Your task to perform on an android device: empty trash in google photos Image 0: 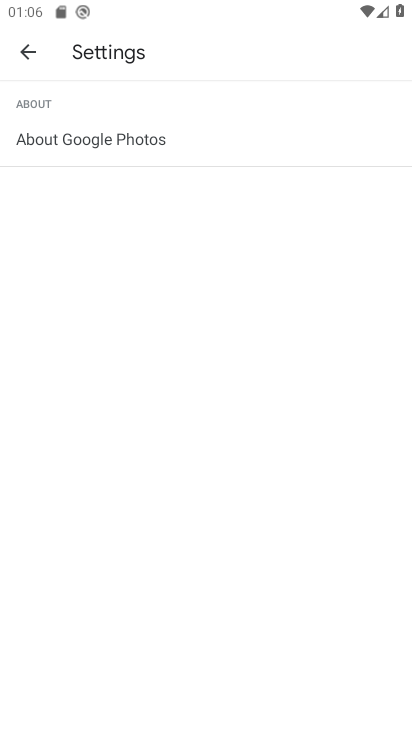
Step 0: press home button
Your task to perform on an android device: empty trash in google photos Image 1: 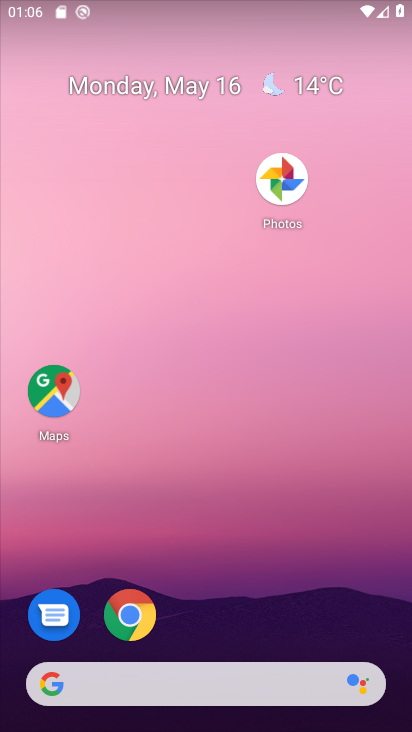
Step 1: drag from (296, 567) to (336, 102)
Your task to perform on an android device: empty trash in google photos Image 2: 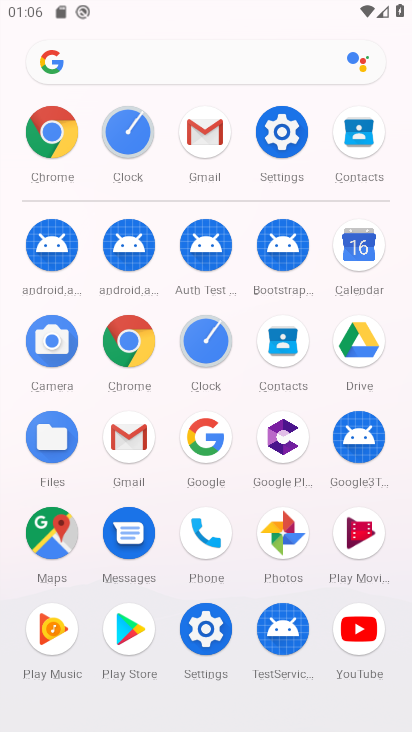
Step 2: click (279, 527)
Your task to perform on an android device: empty trash in google photos Image 3: 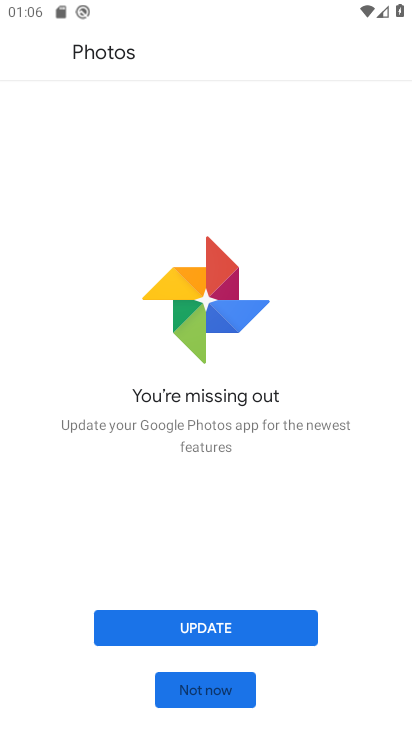
Step 3: click (135, 623)
Your task to perform on an android device: empty trash in google photos Image 4: 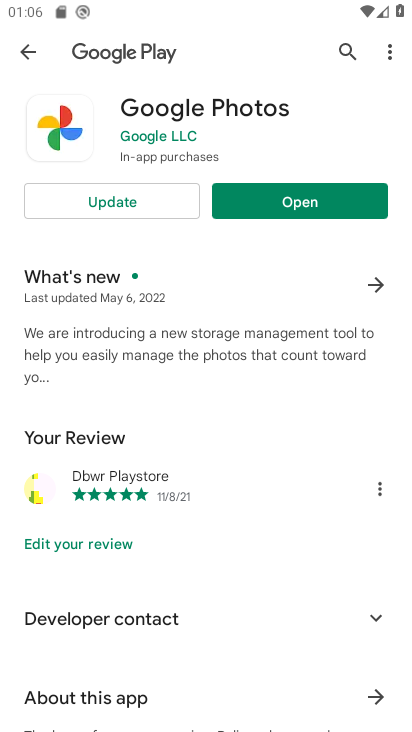
Step 4: click (135, 203)
Your task to perform on an android device: empty trash in google photos Image 5: 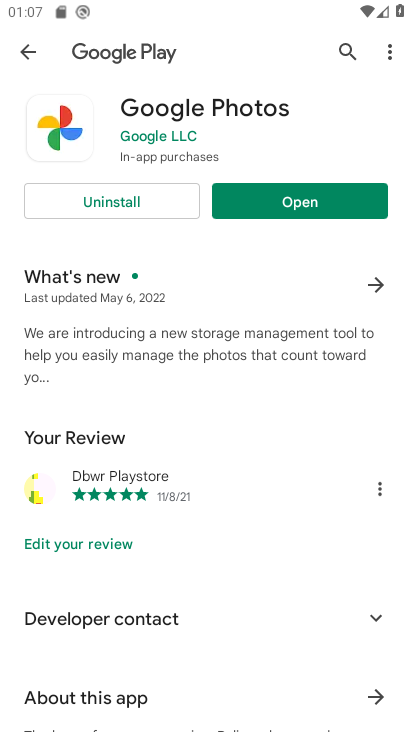
Step 5: click (326, 208)
Your task to perform on an android device: empty trash in google photos Image 6: 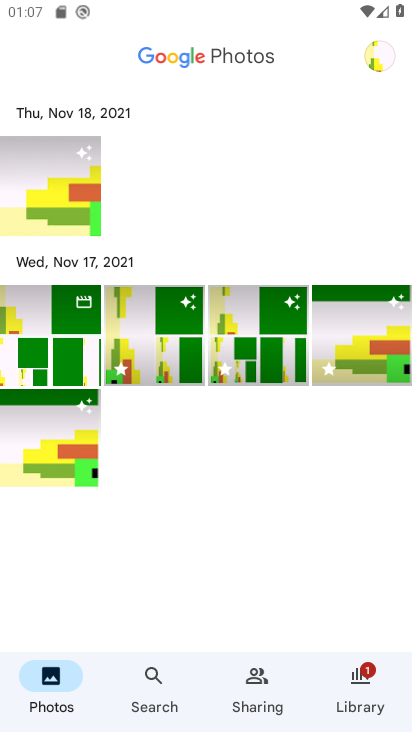
Step 6: click (364, 690)
Your task to perform on an android device: empty trash in google photos Image 7: 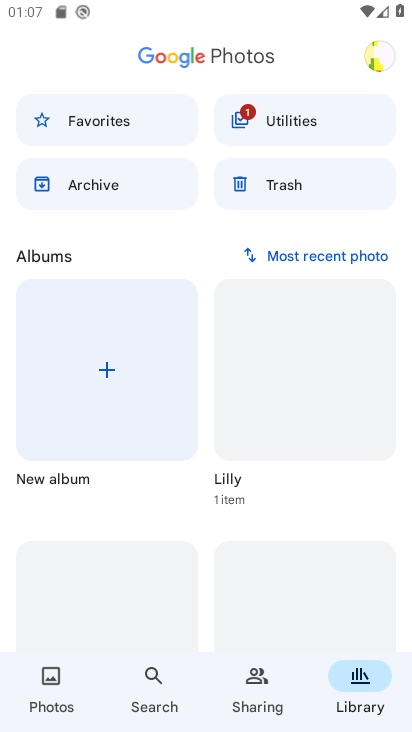
Step 7: click (251, 179)
Your task to perform on an android device: empty trash in google photos Image 8: 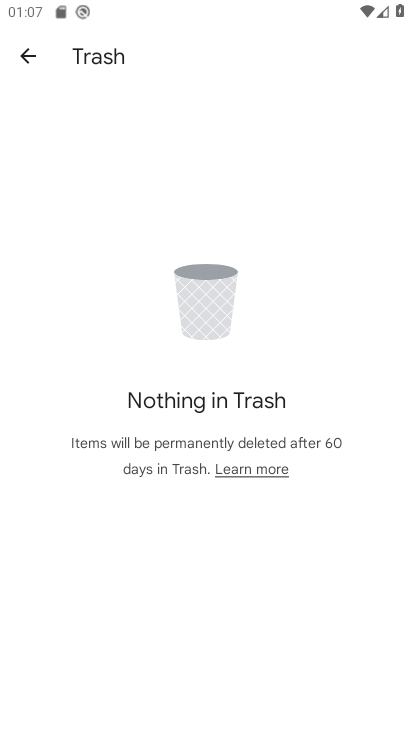
Step 8: task complete